Your task to perform on an android device: Open my contact list Image 0: 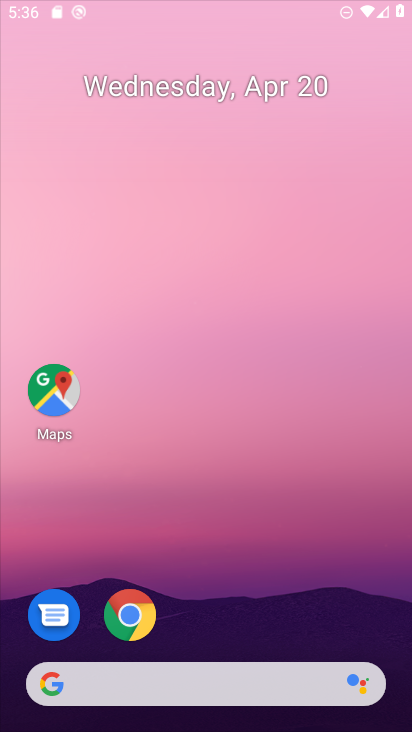
Step 0: drag from (230, 570) to (208, 70)
Your task to perform on an android device: Open my contact list Image 1: 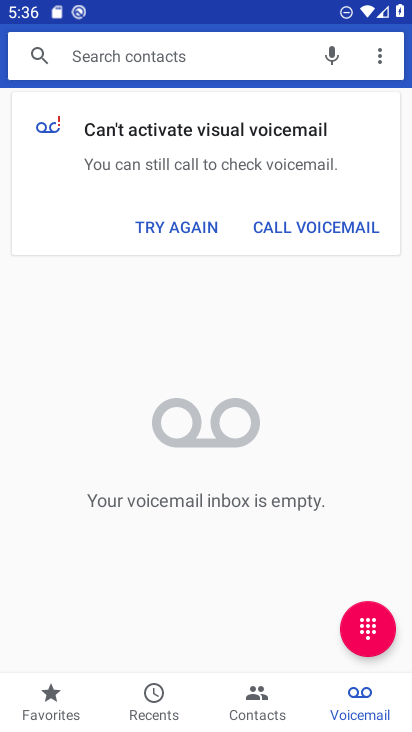
Step 1: press home button
Your task to perform on an android device: Open my contact list Image 2: 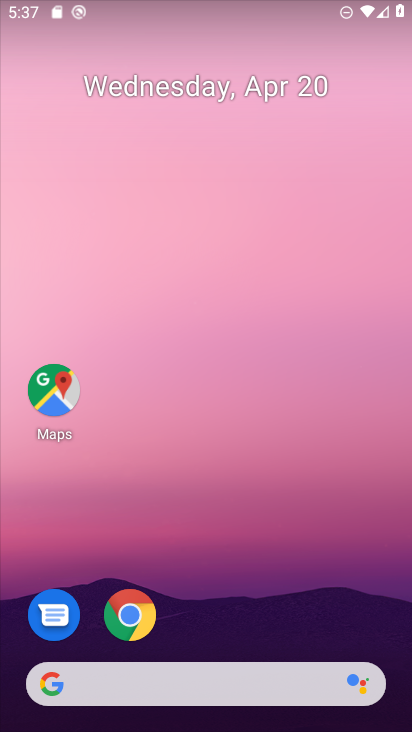
Step 2: drag from (225, 589) to (193, 94)
Your task to perform on an android device: Open my contact list Image 3: 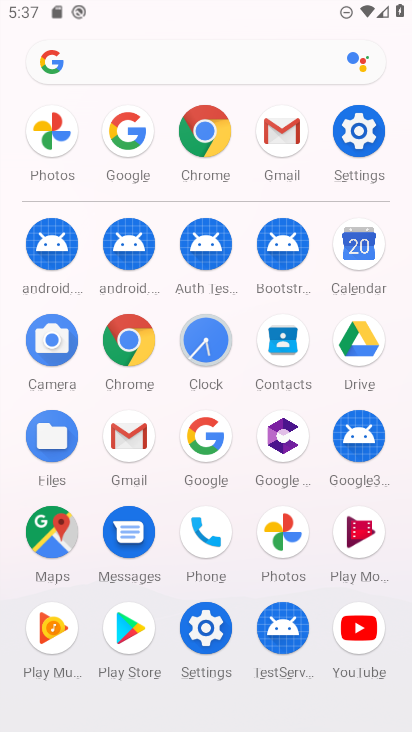
Step 3: click (281, 344)
Your task to perform on an android device: Open my contact list Image 4: 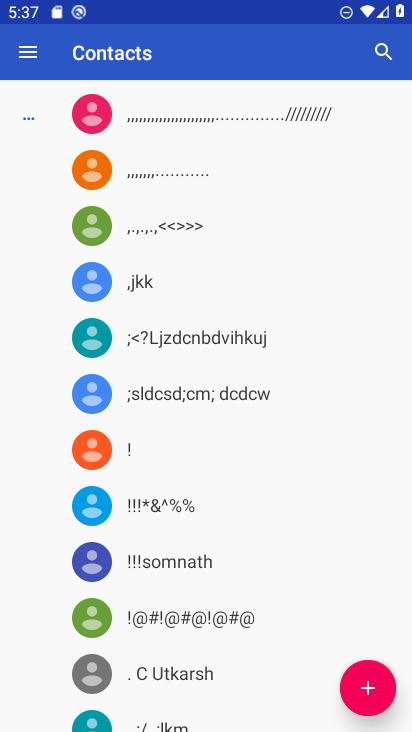
Step 4: task complete